Your task to perform on an android device: set the timer Image 0: 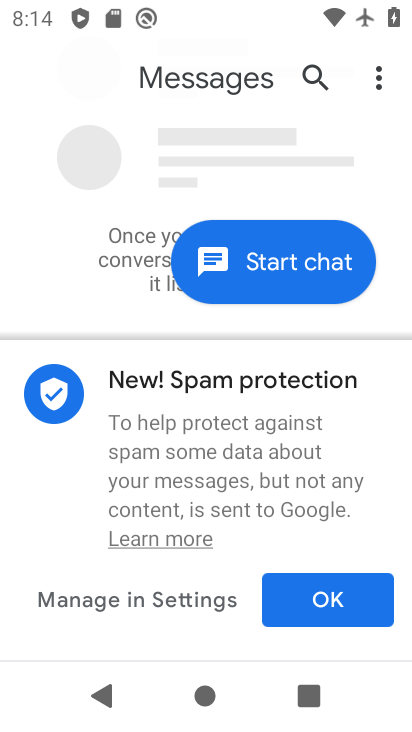
Step 0: press back button
Your task to perform on an android device: set the timer Image 1: 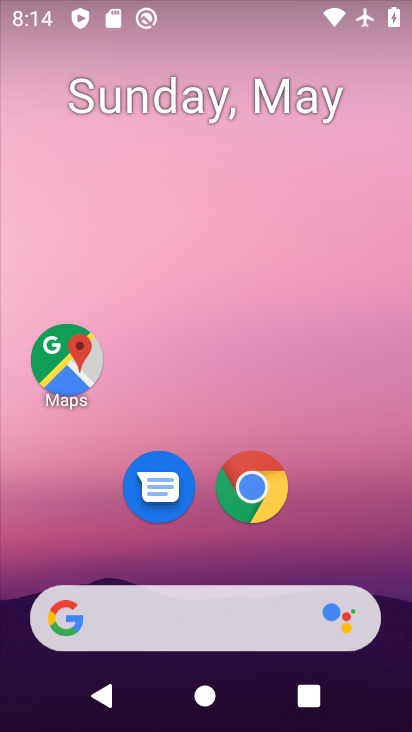
Step 1: drag from (245, 321) to (307, 15)
Your task to perform on an android device: set the timer Image 2: 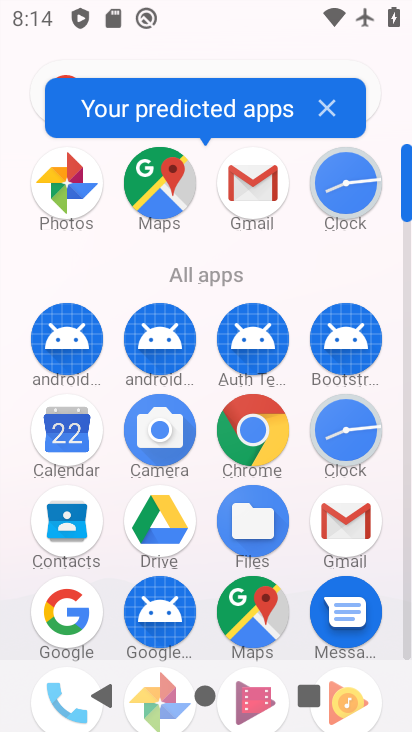
Step 2: click (347, 189)
Your task to perform on an android device: set the timer Image 3: 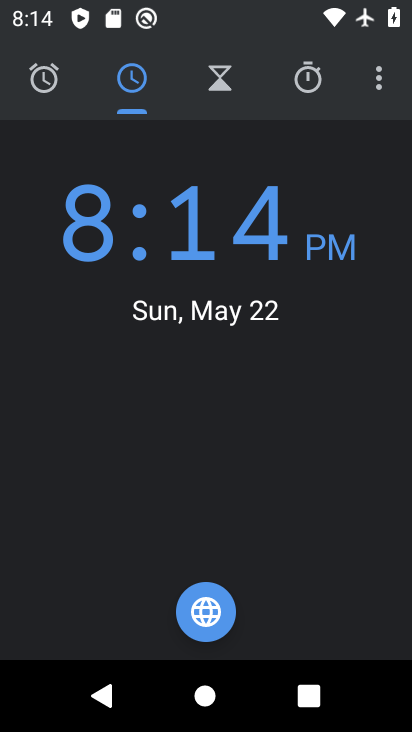
Step 3: click (215, 82)
Your task to perform on an android device: set the timer Image 4: 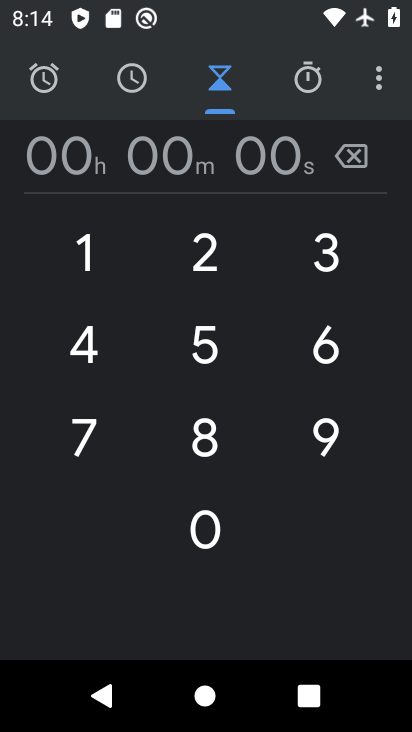
Step 4: click (176, 236)
Your task to perform on an android device: set the timer Image 5: 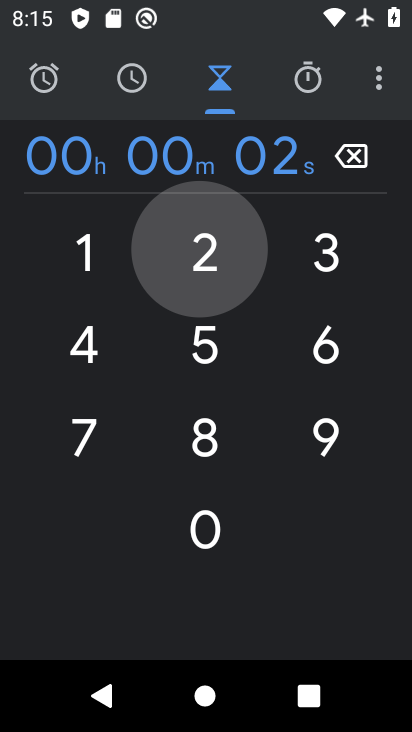
Step 5: click (316, 236)
Your task to perform on an android device: set the timer Image 6: 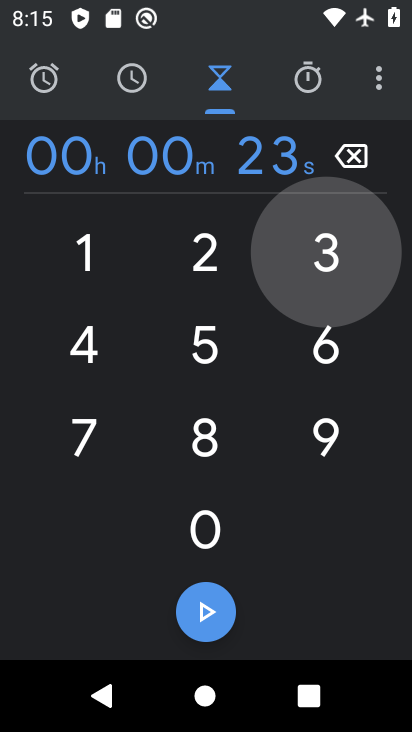
Step 6: click (202, 335)
Your task to perform on an android device: set the timer Image 7: 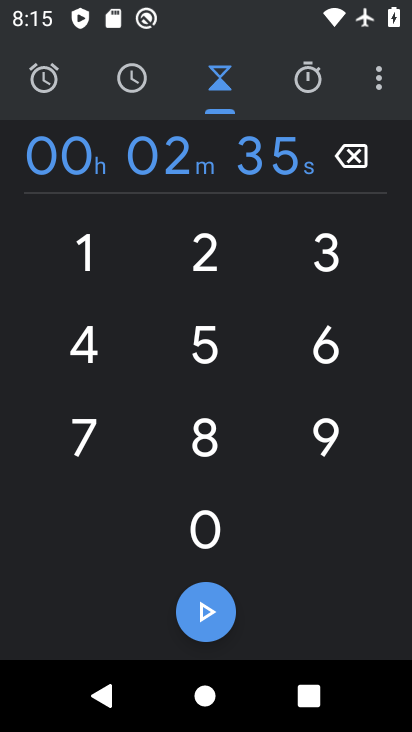
Step 7: click (312, 338)
Your task to perform on an android device: set the timer Image 8: 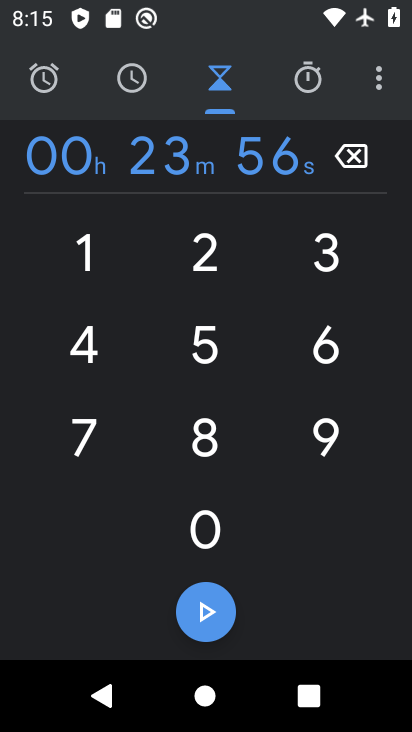
Step 8: click (57, 325)
Your task to perform on an android device: set the timer Image 9: 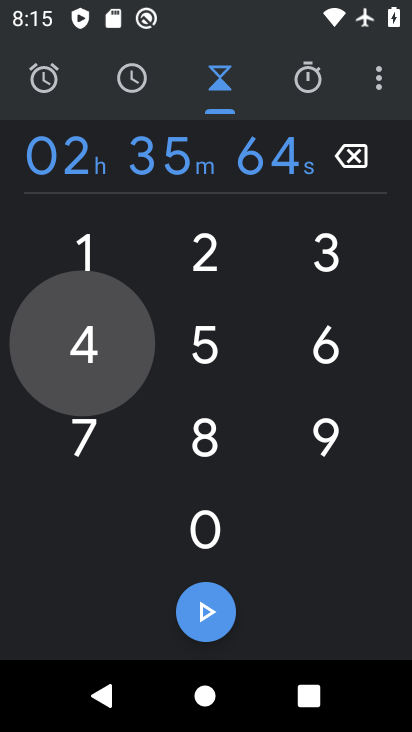
Step 9: task complete